Your task to perform on an android device: Open the calendar and show me this week's events? Image 0: 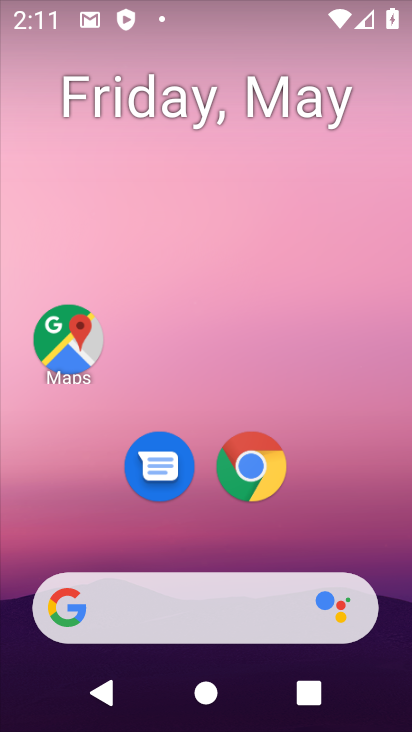
Step 0: drag from (353, 500) to (338, 83)
Your task to perform on an android device: Open the calendar and show me this week's events? Image 1: 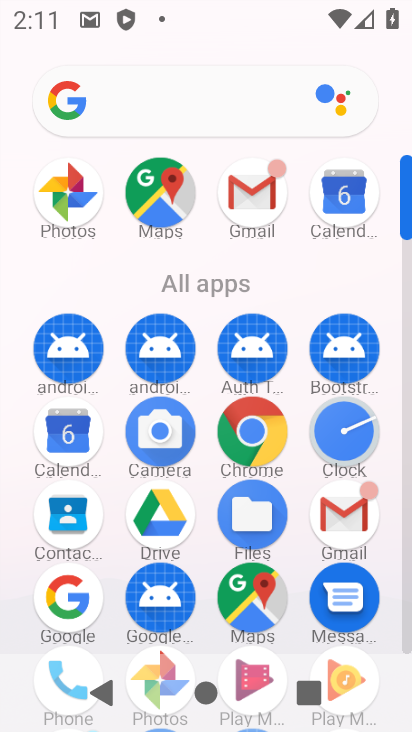
Step 1: click (67, 425)
Your task to perform on an android device: Open the calendar and show me this week's events? Image 2: 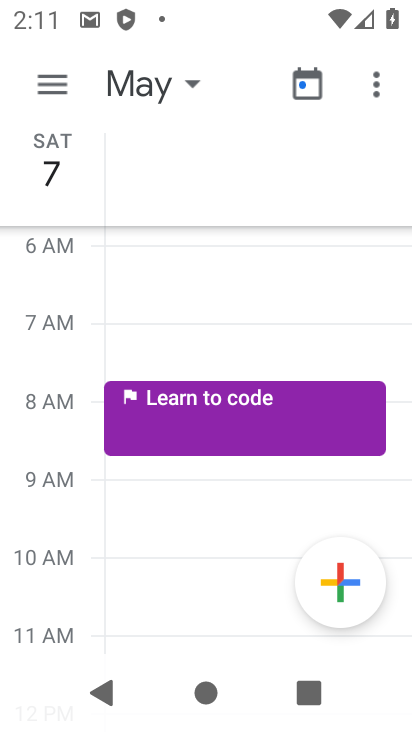
Step 2: click (61, 90)
Your task to perform on an android device: Open the calendar and show me this week's events? Image 3: 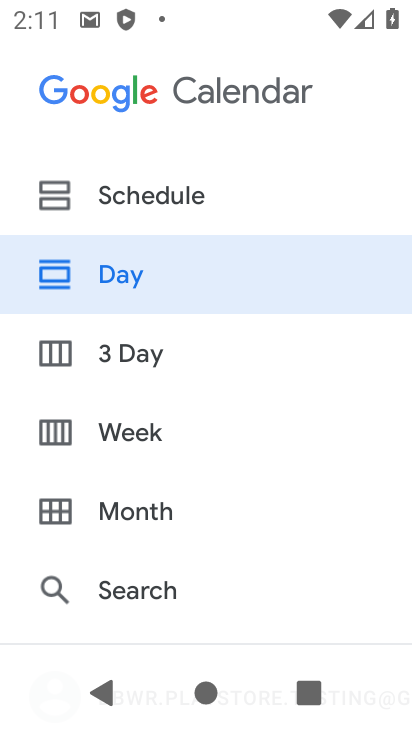
Step 3: click (145, 427)
Your task to perform on an android device: Open the calendar and show me this week's events? Image 4: 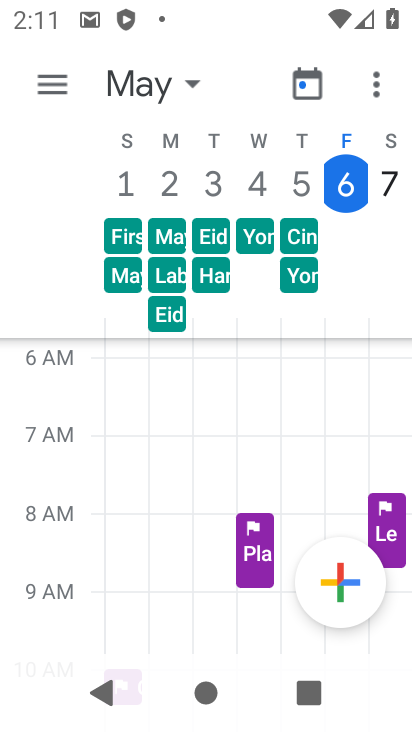
Step 4: task complete